Your task to perform on an android device: Go to Google maps Image 0: 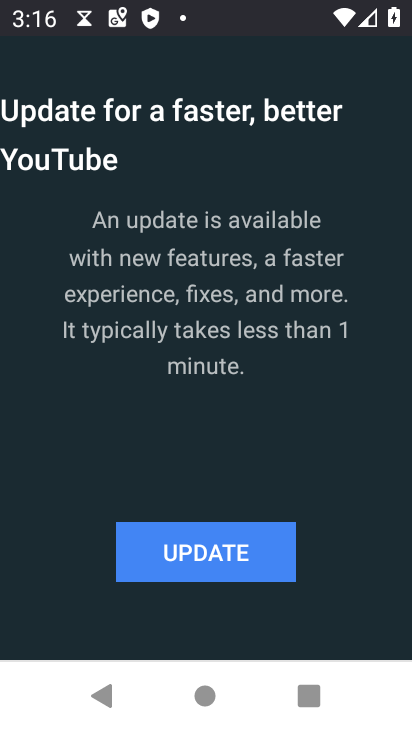
Step 0: press home button
Your task to perform on an android device: Go to Google maps Image 1: 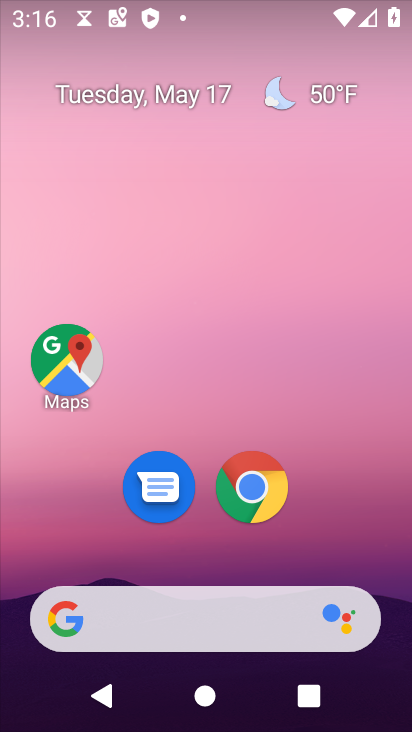
Step 1: click (65, 361)
Your task to perform on an android device: Go to Google maps Image 2: 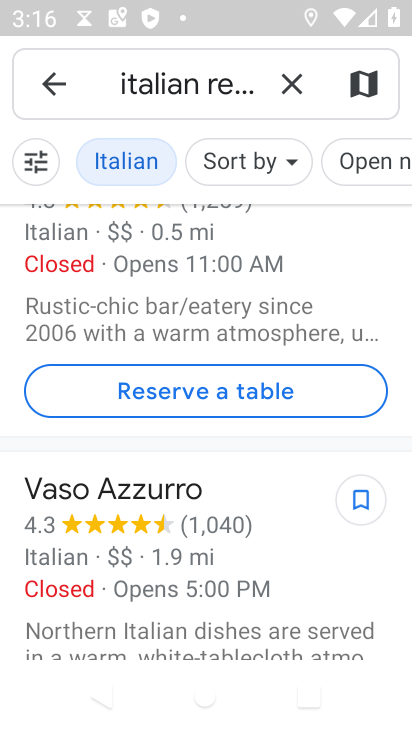
Step 2: click (285, 80)
Your task to perform on an android device: Go to Google maps Image 3: 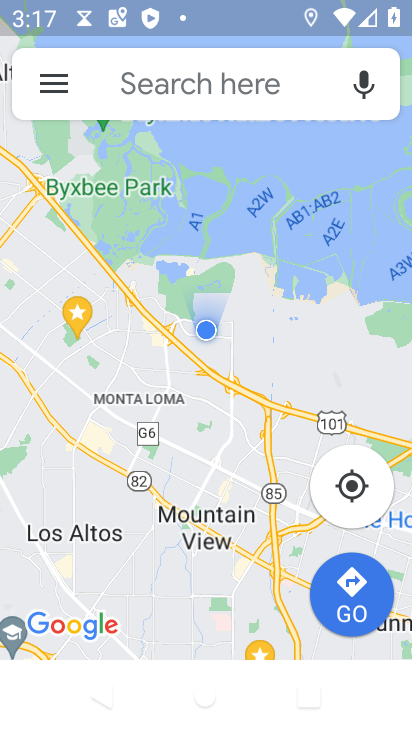
Step 3: task complete